Your task to perform on an android device: change the clock display to analog Image 0: 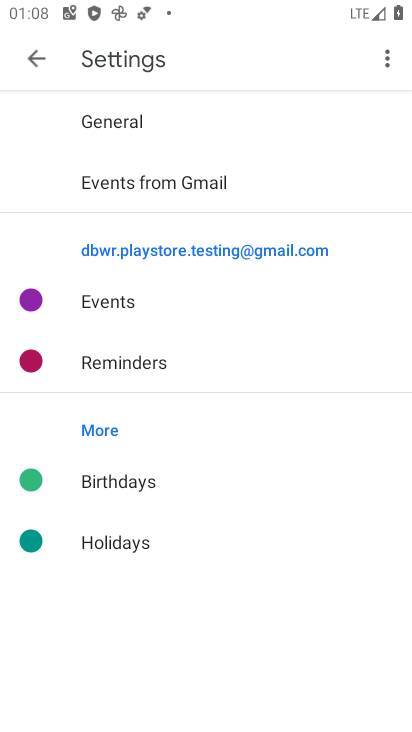
Step 0: press home button
Your task to perform on an android device: change the clock display to analog Image 1: 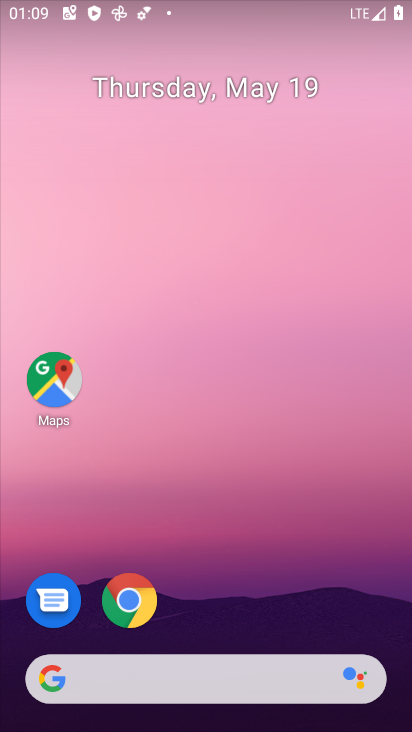
Step 1: drag from (224, 580) to (207, 84)
Your task to perform on an android device: change the clock display to analog Image 2: 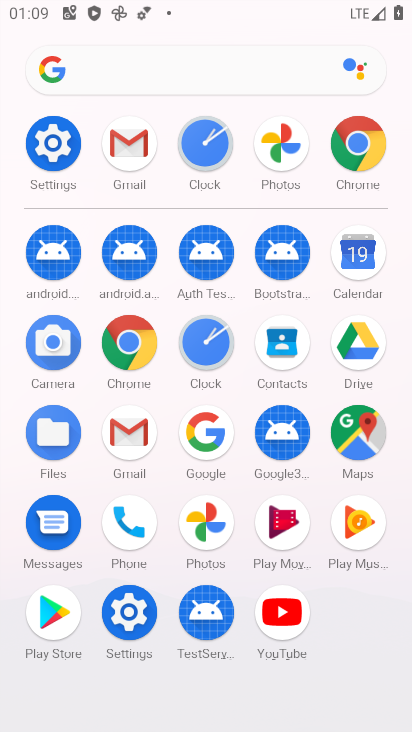
Step 2: click (205, 147)
Your task to perform on an android device: change the clock display to analog Image 3: 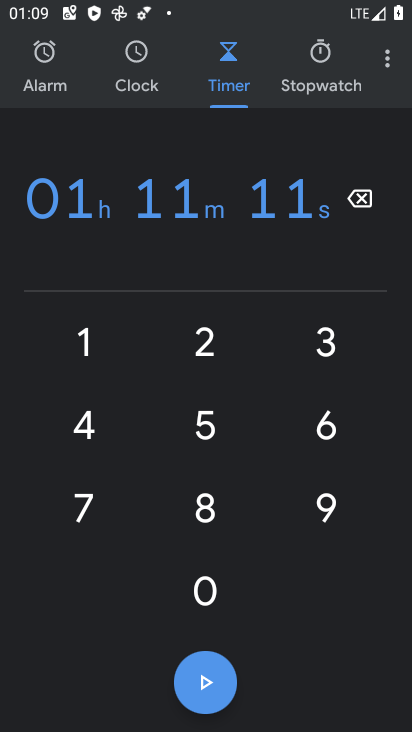
Step 3: click (385, 53)
Your task to perform on an android device: change the clock display to analog Image 4: 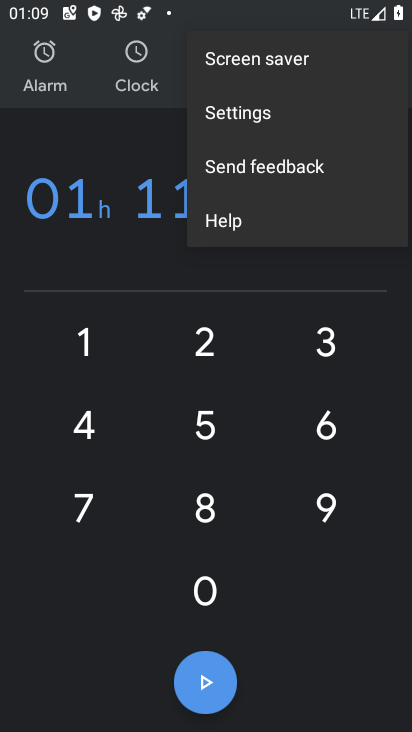
Step 4: click (236, 112)
Your task to perform on an android device: change the clock display to analog Image 5: 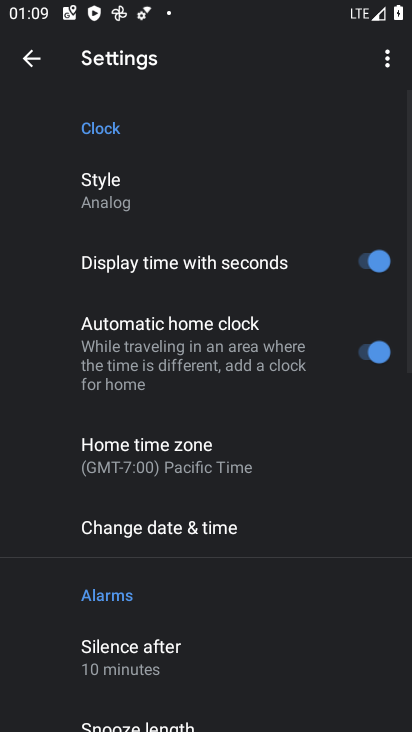
Step 5: click (99, 188)
Your task to perform on an android device: change the clock display to analog Image 6: 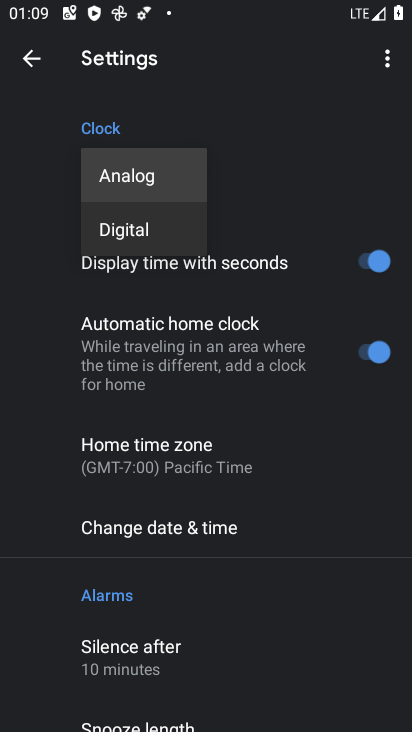
Step 6: click (131, 182)
Your task to perform on an android device: change the clock display to analog Image 7: 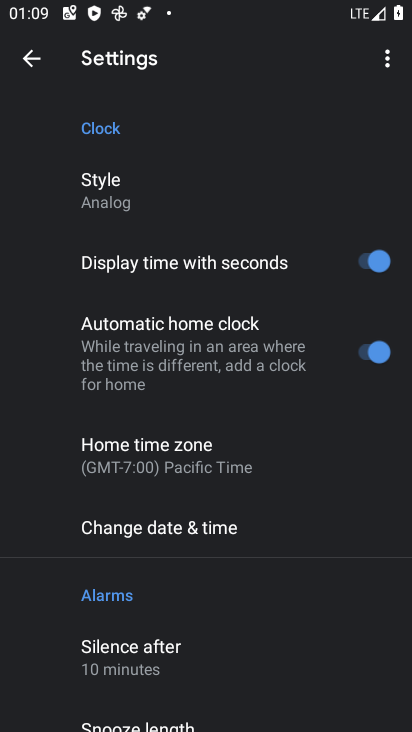
Step 7: task complete